Your task to perform on an android device: Go to Yahoo.com Image 0: 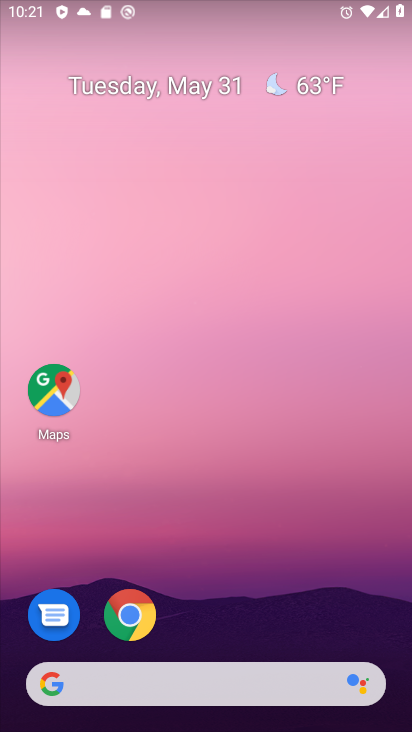
Step 0: click (120, 622)
Your task to perform on an android device: Go to Yahoo.com Image 1: 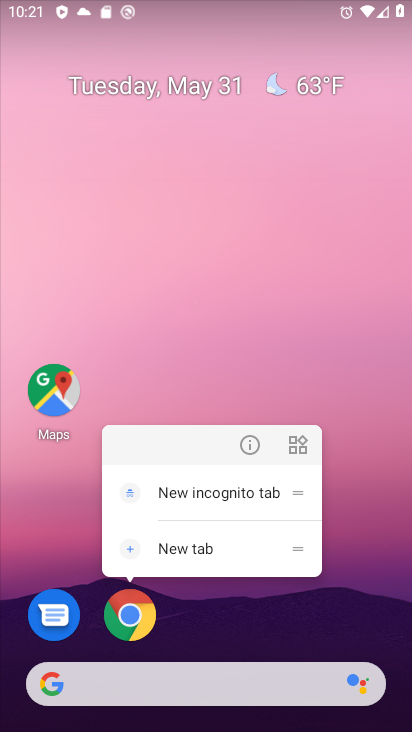
Step 1: click (115, 618)
Your task to perform on an android device: Go to Yahoo.com Image 2: 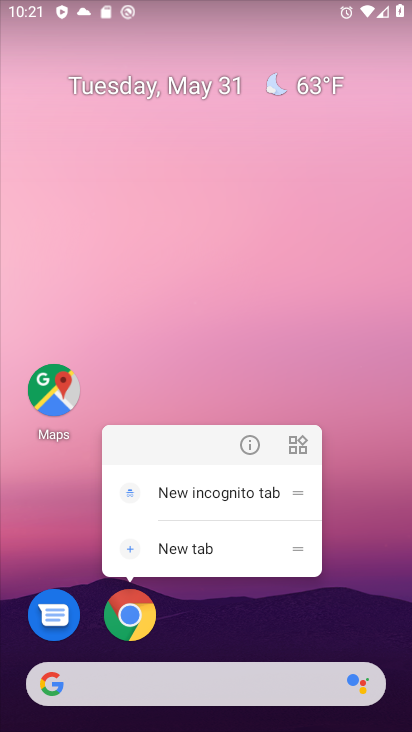
Step 2: click (127, 619)
Your task to perform on an android device: Go to Yahoo.com Image 3: 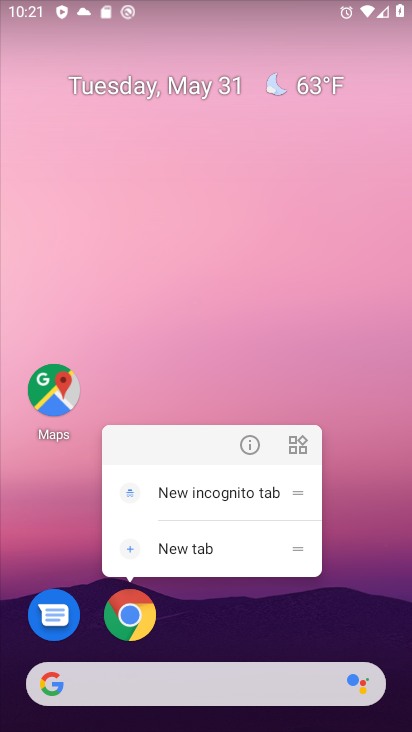
Step 3: click (132, 624)
Your task to perform on an android device: Go to Yahoo.com Image 4: 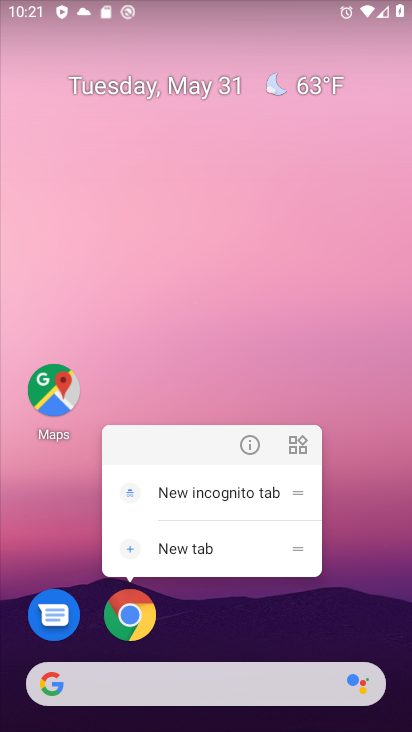
Step 4: click (150, 611)
Your task to perform on an android device: Go to Yahoo.com Image 5: 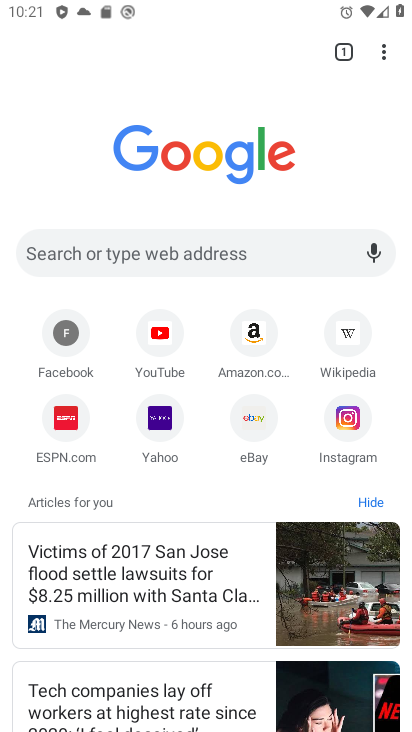
Step 5: click (145, 425)
Your task to perform on an android device: Go to Yahoo.com Image 6: 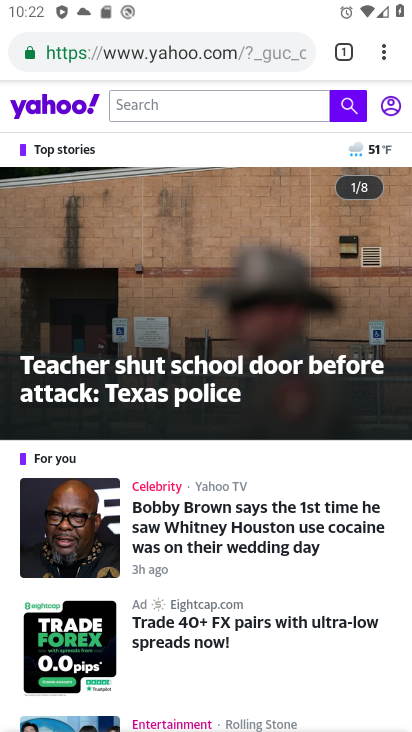
Step 6: task complete